Your task to perform on an android device: change the clock display to analog Image 0: 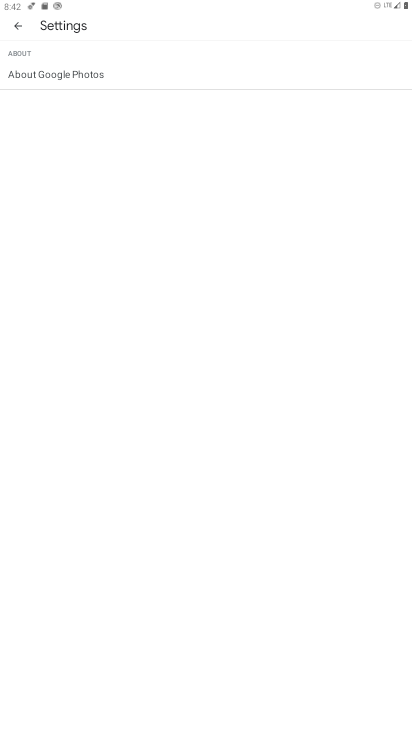
Step 0: press home button
Your task to perform on an android device: change the clock display to analog Image 1: 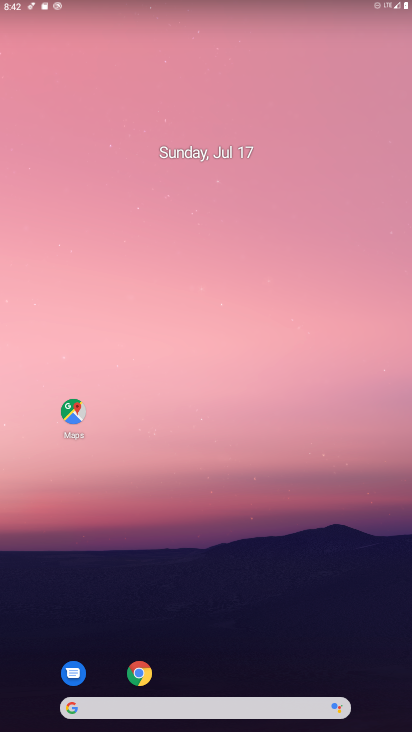
Step 1: drag from (278, 613) to (232, 7)
Your task to perform on an android device: change the clock display to analog Image 2: 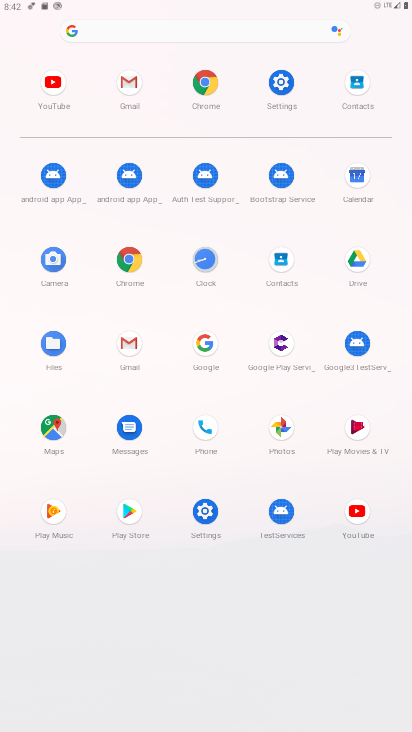
Step 2: click (202, 264)
Your task to perform on an android device: change the clock display to analog Image 3: 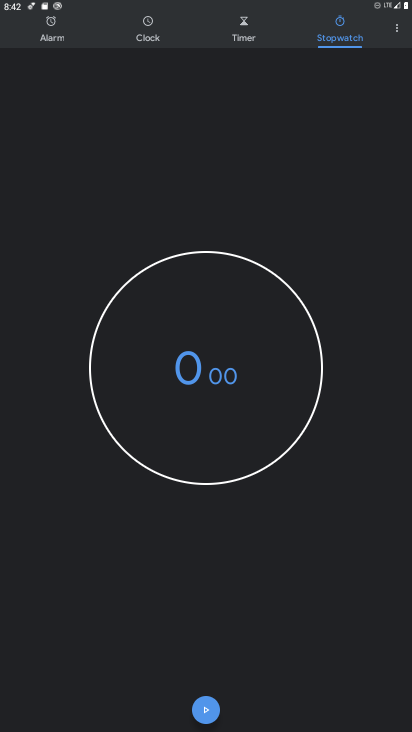
Step 3: click (402, 26)
Your task to perform on an android device: change the clock display to analog Image 4: 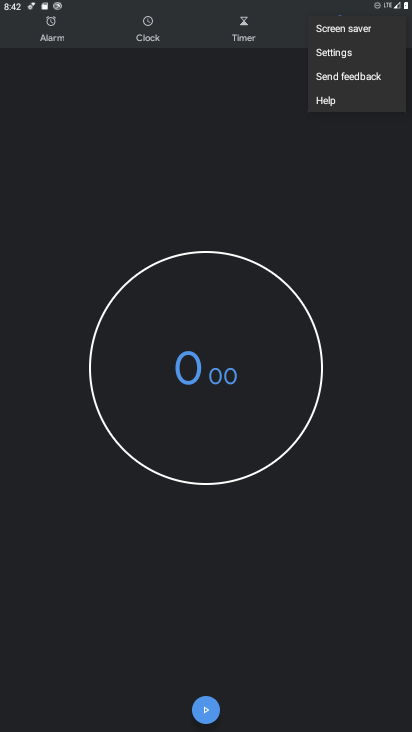
Step 4: click (355, 63)
Your task to perform on an android device: change the clock display to analog Image 5: 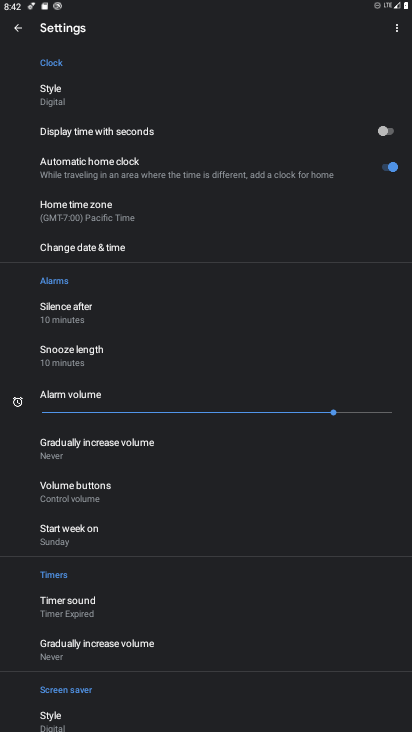
Step 5: click (46, 81)
Your task to perform on an android device: change the clock display to analog Image 6: 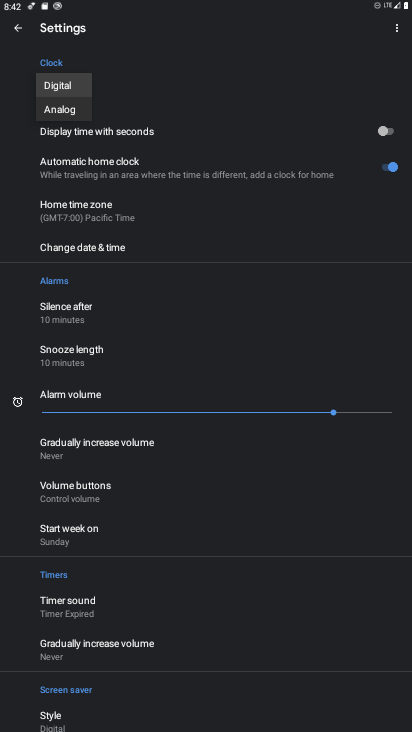
Step 6: click (57, 118)
Your task to perform on an android device: change the clock display to analog Image 7: 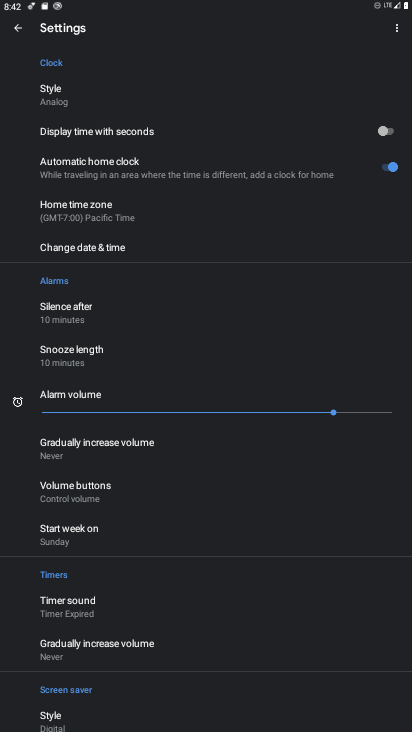
Step 7: task complete